Your task to perform on an android device: Go to calendar. Show me events next week Image 0: 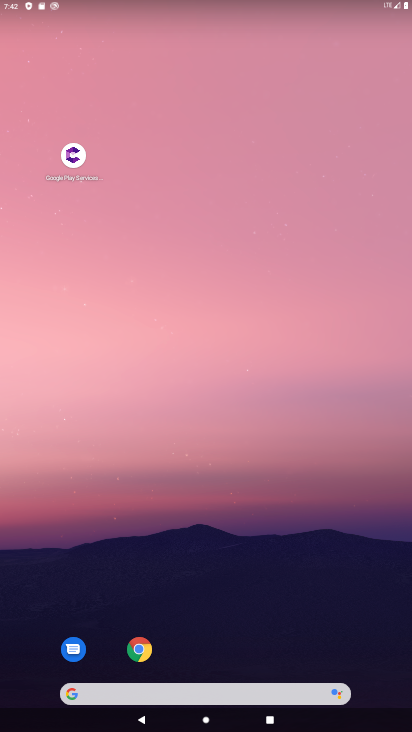
Step 0: drag from (184, 700) to (240, 70)
Your task to perform on an android device: Go to calendar. Show me events next week Image 1: 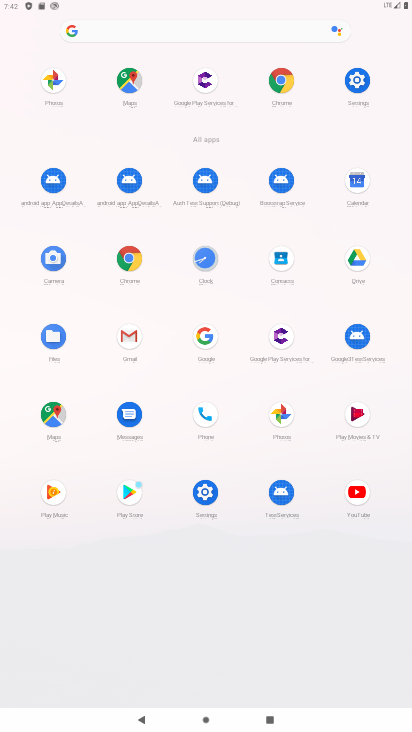
Step 1: click (358, 194)
Your task to perform on an android device: Go to calendar. Show me events next week Image 2: 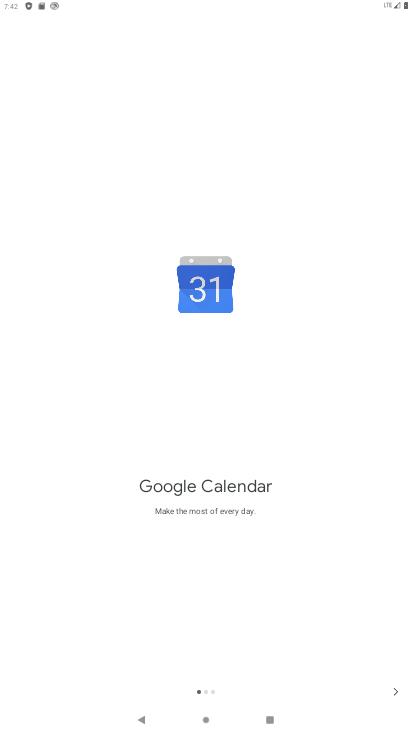
Step 2: click (390, 691)
Your task to perform on an android device: Go to calendar. Show me events next week Image 3: 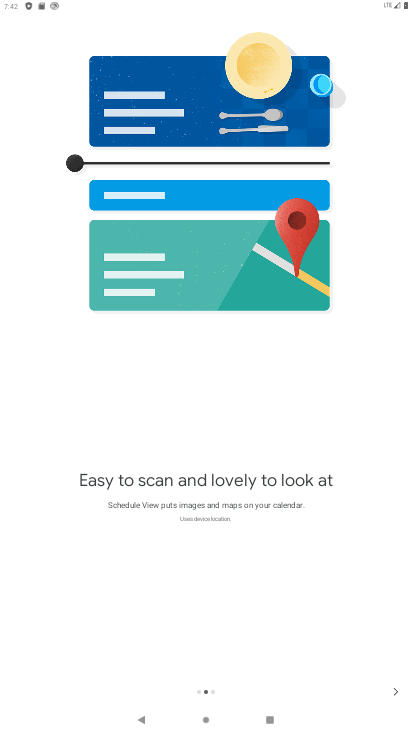
Step 3: click (390, 691)
Your task to perform on an android device: Go to calendar. Show me events next week Image 4: 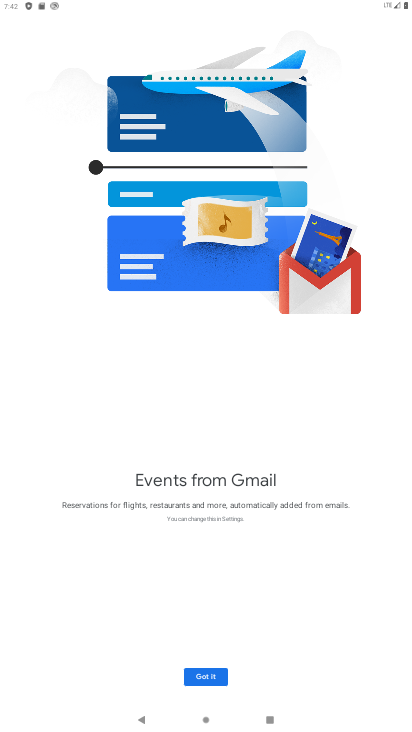
Step 4: click (208, 679)
Your task to perform on an android device: Go to calendar. Show me events next week Image 5: 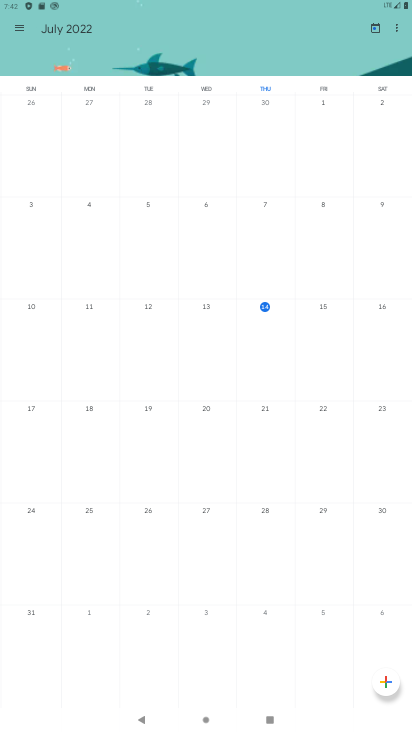
Step 5: click (29, 408)
Your task to perform on an android device: Go to calendar. Show me events next week Image 6: 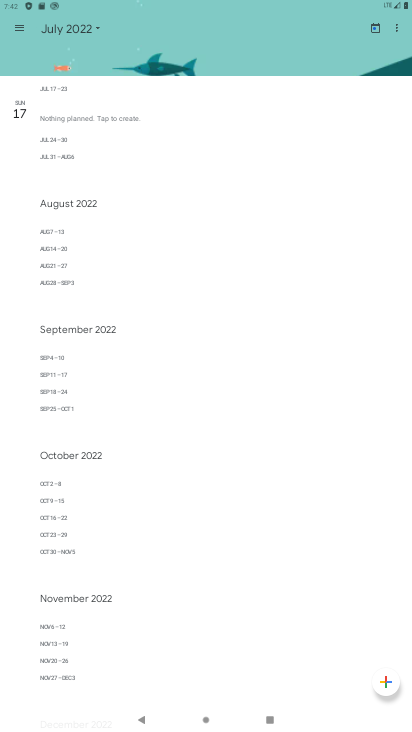
Step 6: task complete